Your task to perform on an android device: turn off smart reply in the gmail app Image 0: 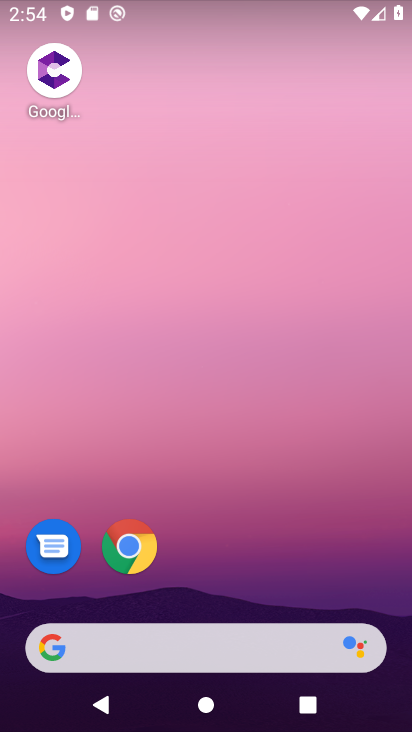
Step 0: drag from (198, 590) to (410, 54)
Your task to perform on an android device: turn off smart reply in the gmail app Image 1: 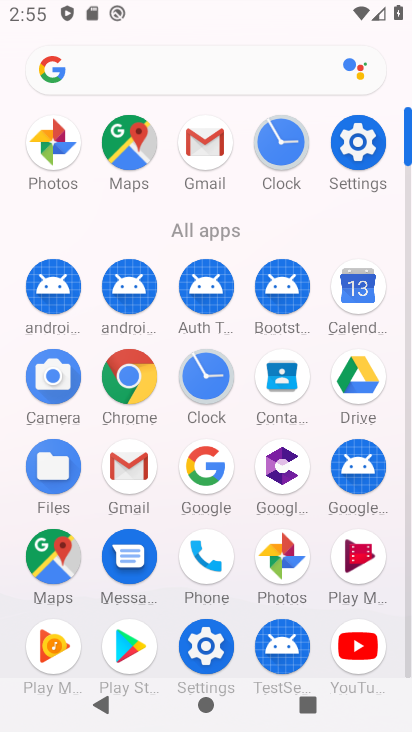
Step 1: click (126, 452)
Your task to perform on an android device: turn off smart reply in the gmail app Image 2: 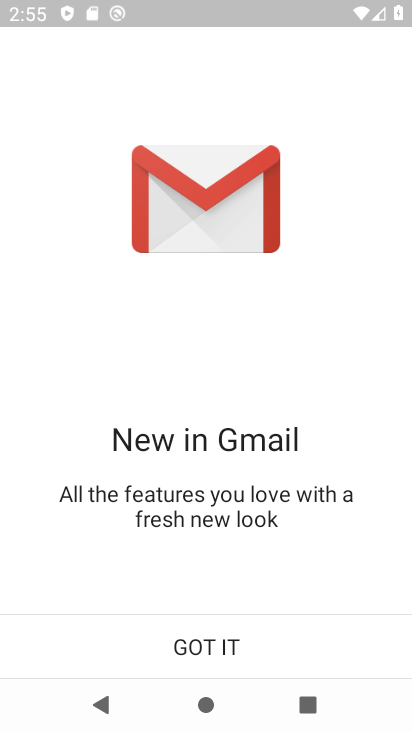
Step 2: click (183, 662)
Your task to perform on an android device: turn off smart reply in the gmail app Image 3: 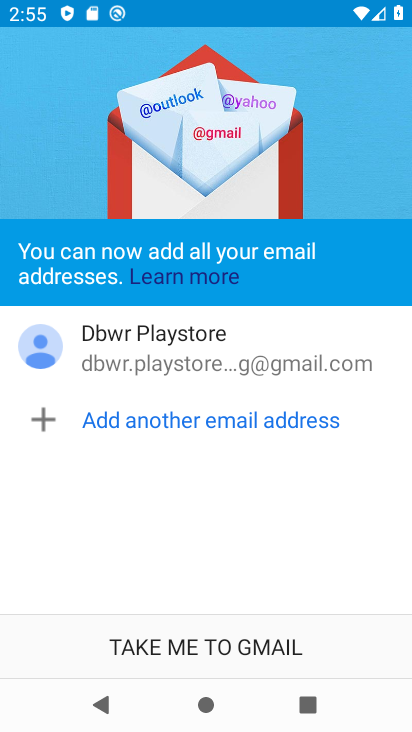
Step 3: click (214, 638)
Your task to perform on an android device: turn off smart reply in the gmail app Image 4: 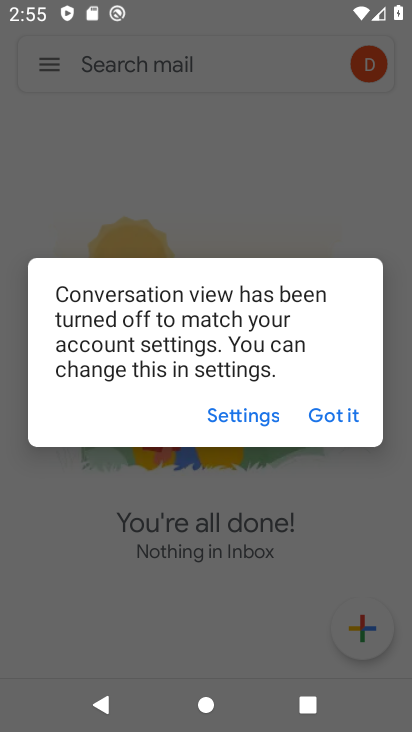
Step 4: click (351, 433)
Your task to perform on an android device: turn off smart reply in the gmail app Image 5: 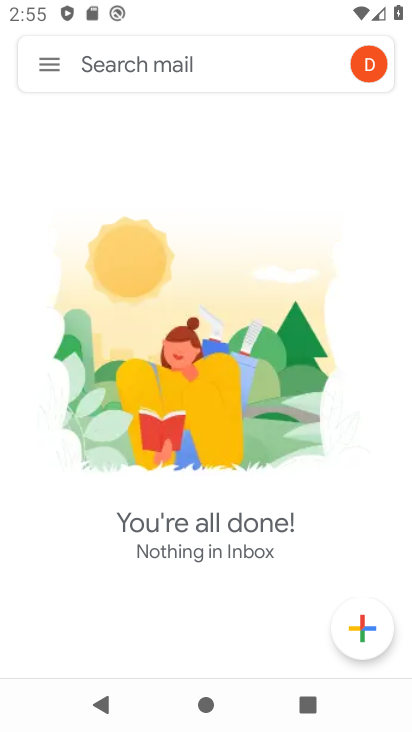
Step 5: click (56, 75)
Your task to perform on an android device: turn off smart reply in the gmail app Image 6: 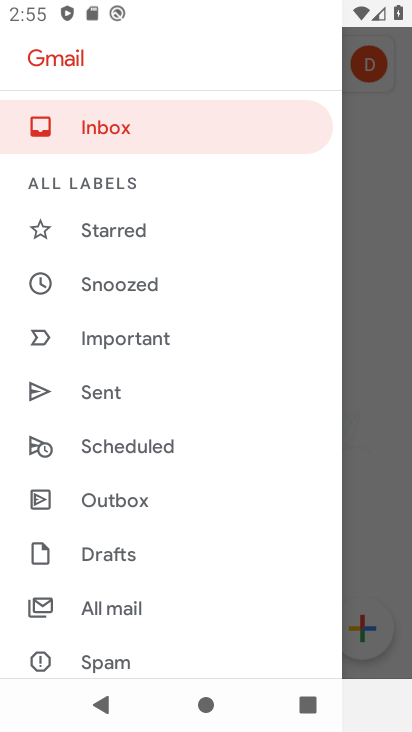
Step 6: drag from (116, 629) to (129, 170)
Your task to perform on an android device: turn off smart reply in the gmail app Image 7: 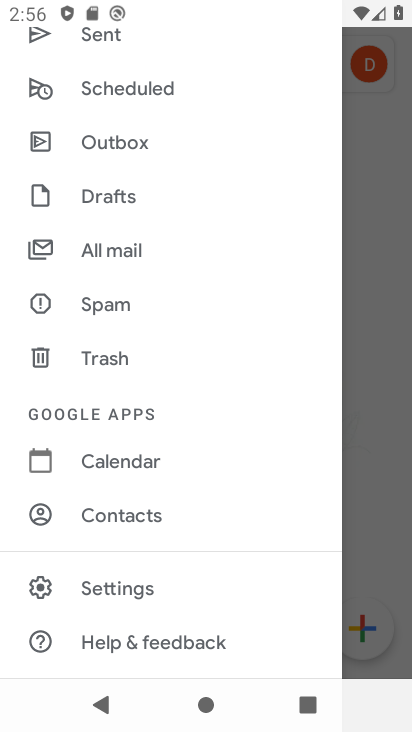
Step 7: click (129, 579)
Your task to perform on an android device: turn off smart reply in the gmail app Image 8: 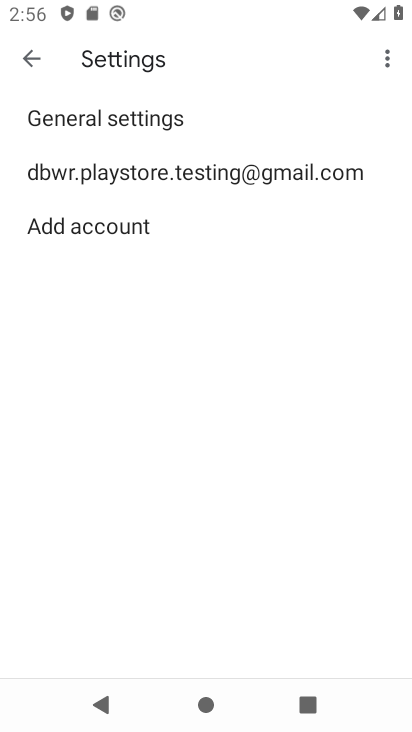
Step 8: click (241, 180)
Your task to perform on an android device: turn off smart reply in the gmail app Image 9: 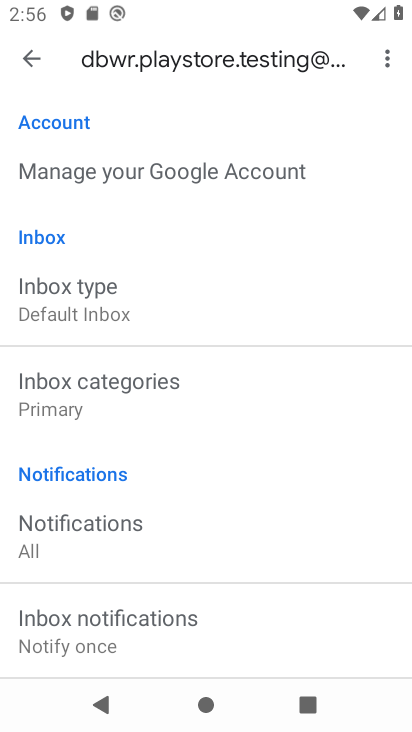
Step 9: drag from (155, 621) to (242, 159)
Your task to perform on an android device: turn off smart reply in the gmail app Image 10: 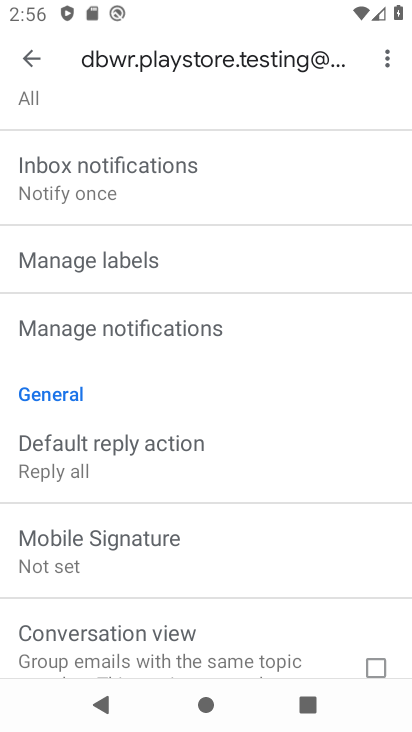
Step 10: drag from (158, 571) to (179, 116)
Your task to perform on an android device: turn off smart reply in the gmail app Image 11: 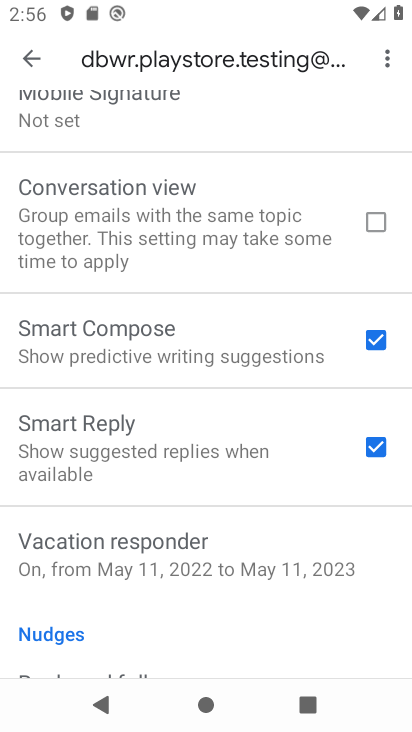
Step 11: click (378, 448)
Your task to perform on an android device: turn off smart reply in the gmail app Image 12: 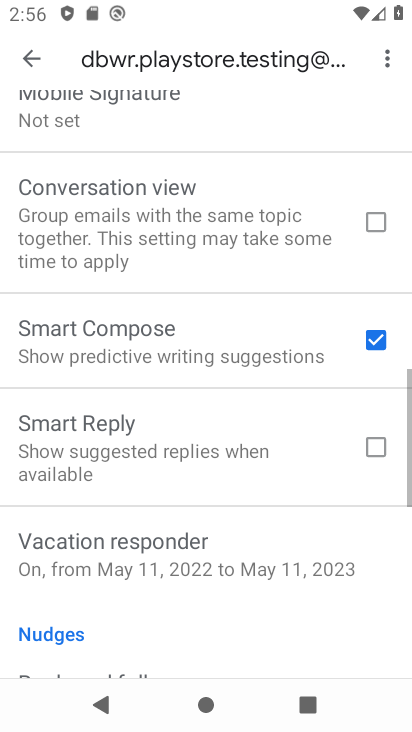
Step 12: task complete